Your task to perform on an android device: Open Maps and search for coffee Image 0: 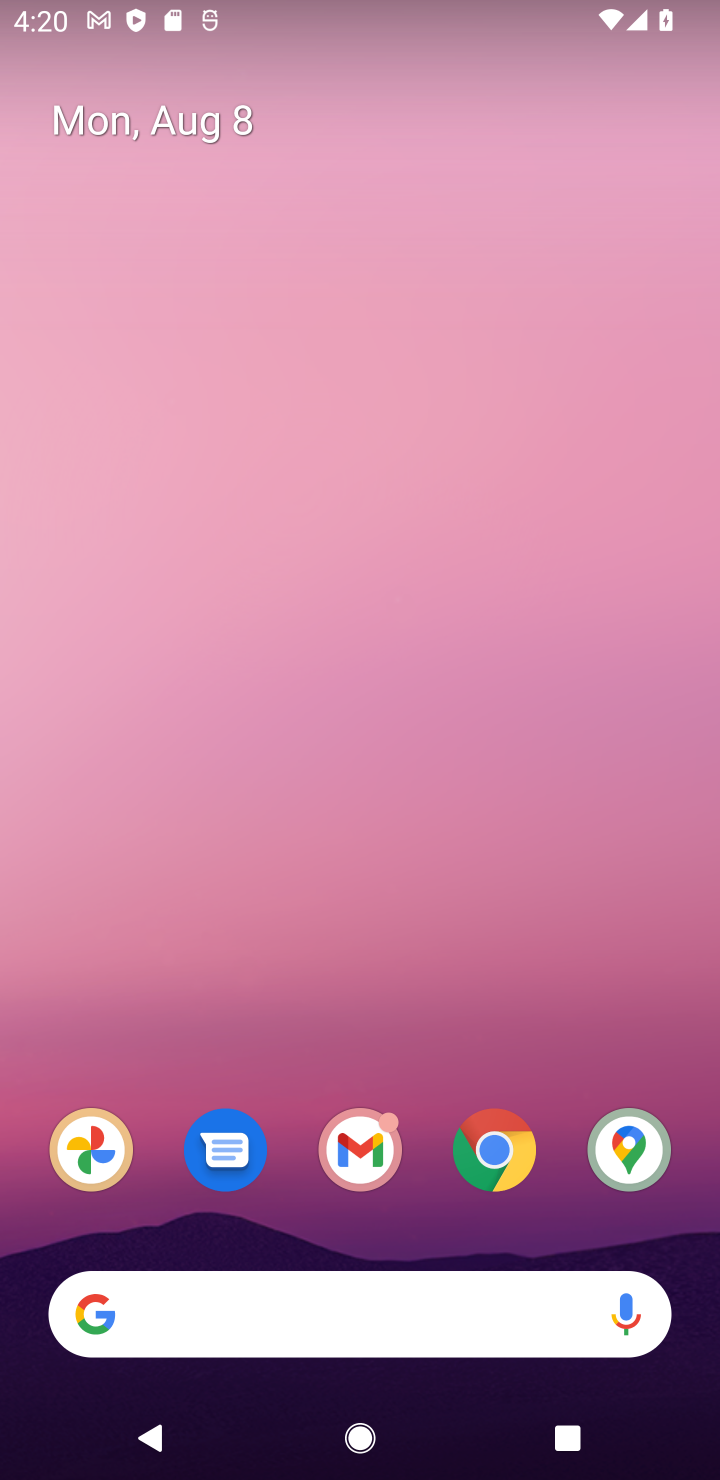
Step 0: click (618, 1190)
Your task to perform on an android device: Open Maps and search for coffee Image 1: 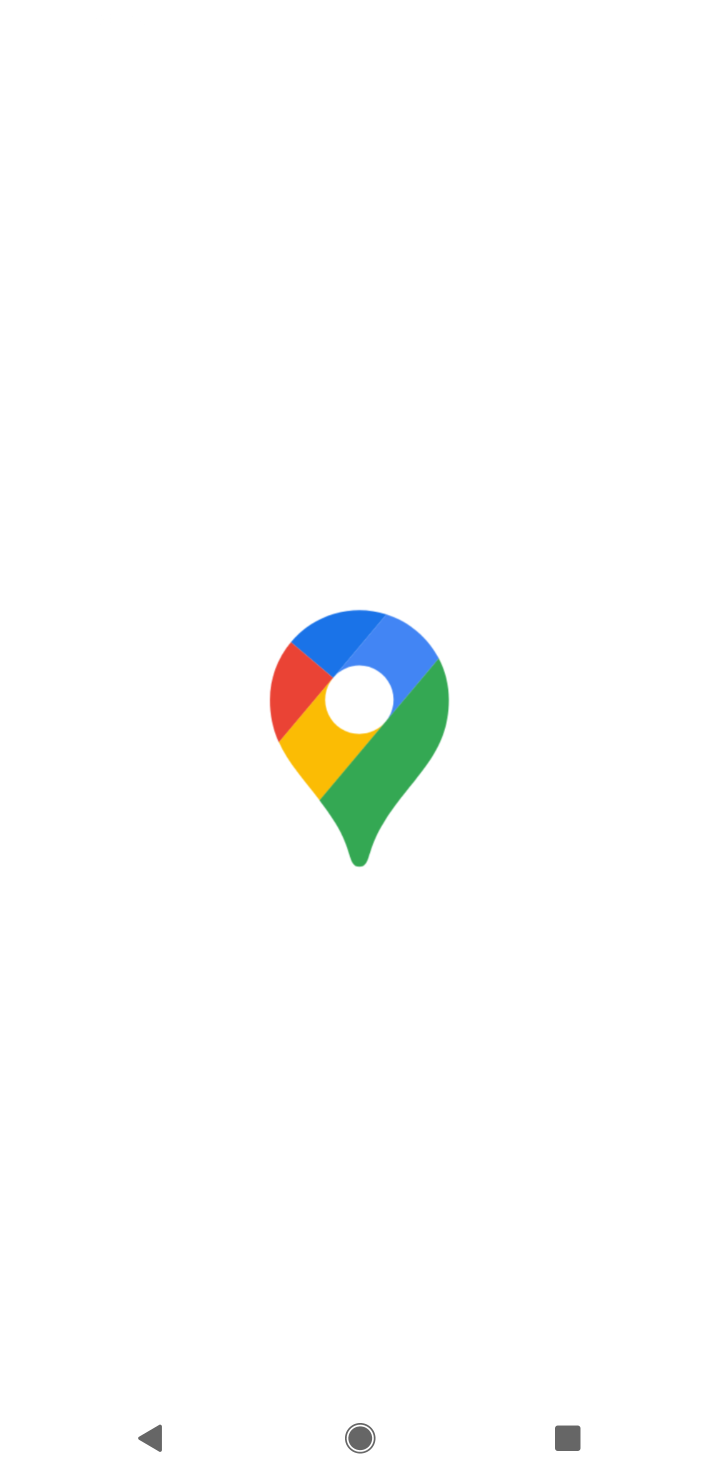
Step 1: task complete